Your task to perform on an android device: check out phone information Image 0: 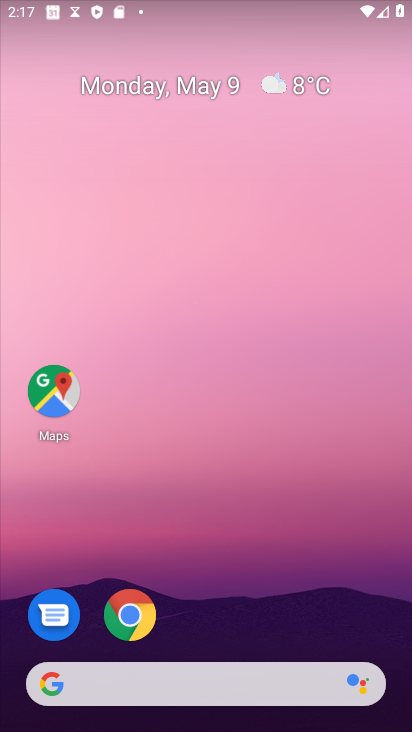
Step 0: drag from (259, 619) to (175, 69)
Your task to perform on an android device: check out phone information Image 1: 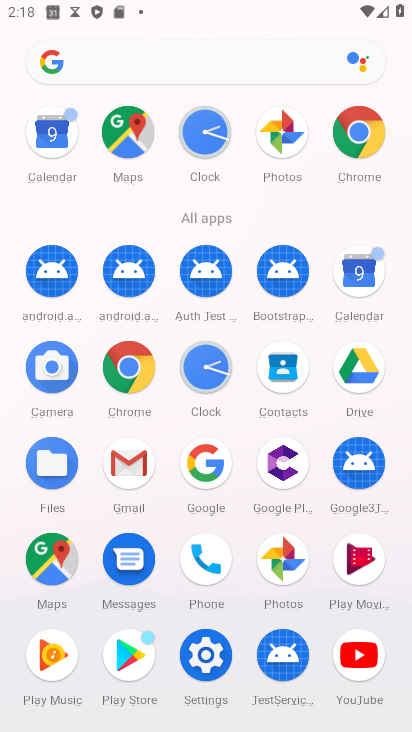
Step 1: click (228, 655)
Your task to perform on an android device: check out phone information Image 2: 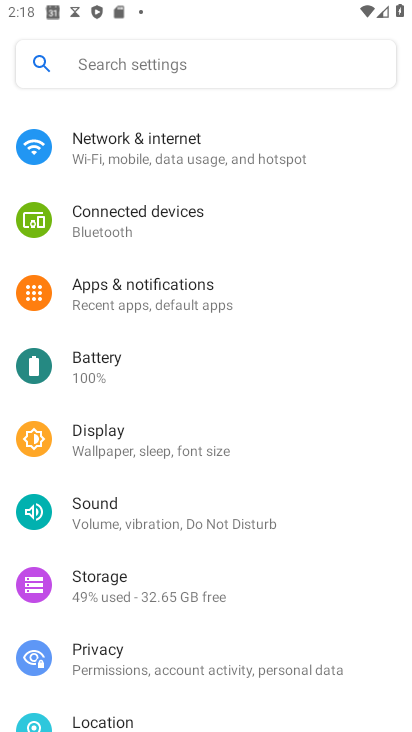
Step 2: click (216, 656)
Your task to perform on an android device: check out phone information Image 3: 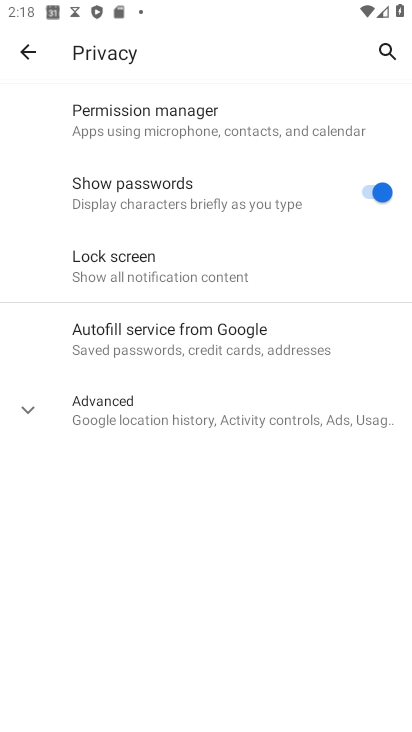
Step 3: click (22, 47)
Your task to perform on an android device: check out phone information Image 4: 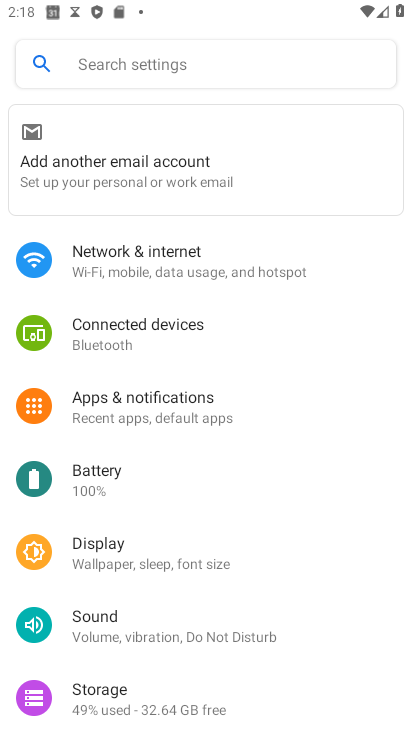
Step 4: drag from (251, 653) to (233, 126)
Your task to perform on an android device: check out phone information Image 5: 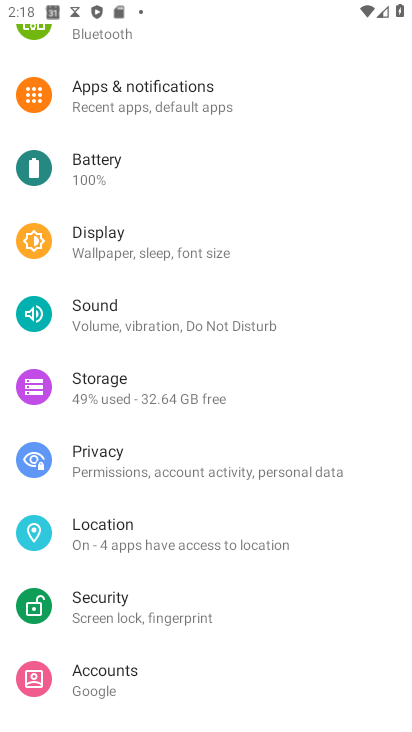
Step 5: drag from (196, 688) to (161, 263)
Your task to perform on an android device: check out phone information Image 6: 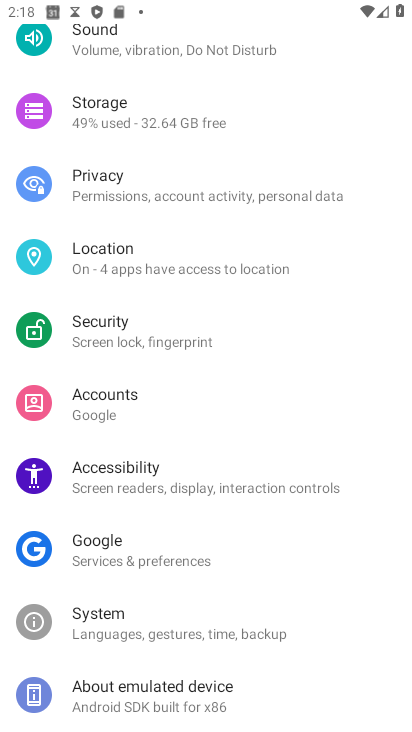
Step 6: drag from (181, 691) to (238, 301)
Your task to perform on an android device: check out phone information Image 7: 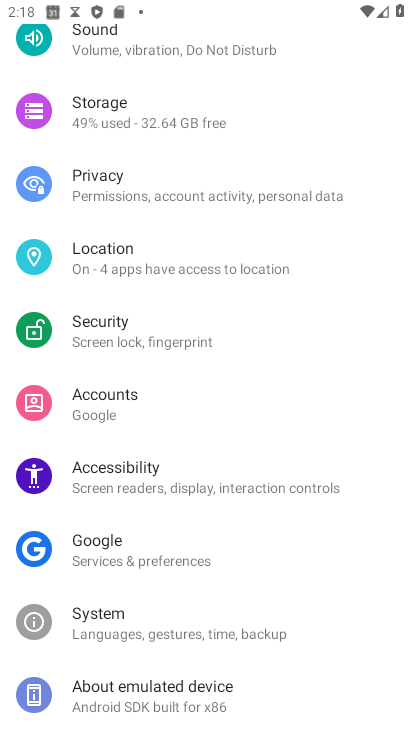
Step 7: click (210, 697)
Your task to perform on an android device: check out phone information Image 8: 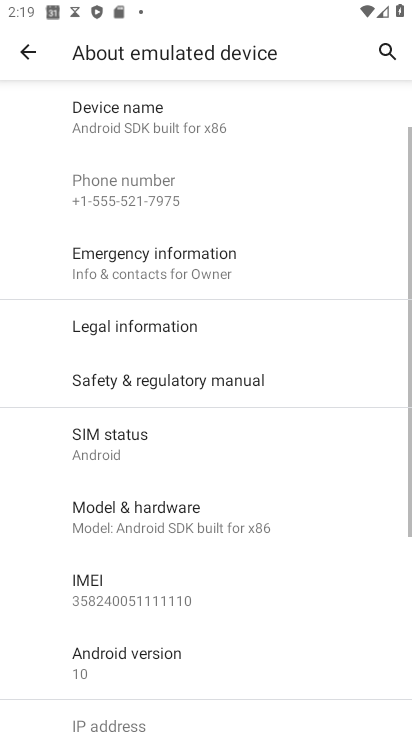
Step 8: task complete